Your task to perform on an android device: Go to Android settings Image 0: 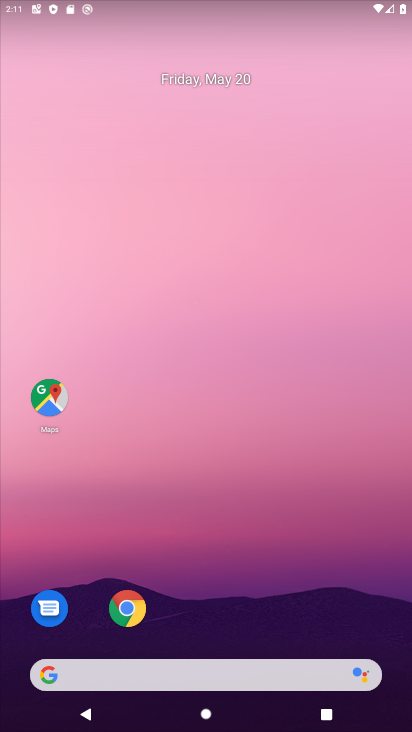
Step 0: drag from (210, 558) to (303, 85)
Your task to perform on an android device: Go to Android settings Image 1: 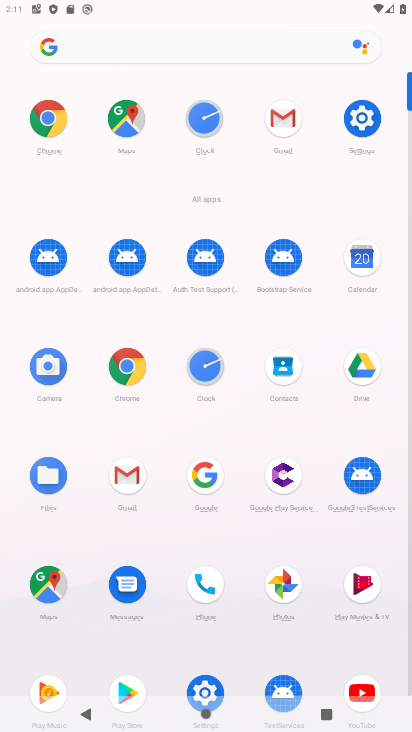
Step 1: click (367, 124)
Your task to perform on an android device: Go to Android settings Image 2: 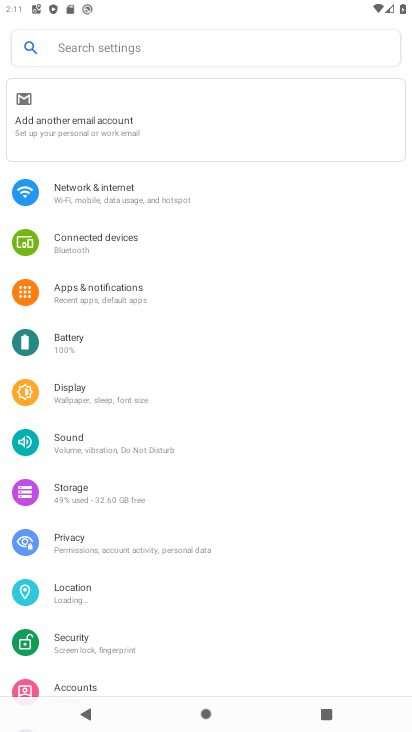
Step 2: drag from (121, 650) to (226, 140)
Your task to perform on an android device: Go to Android settings Image 3: 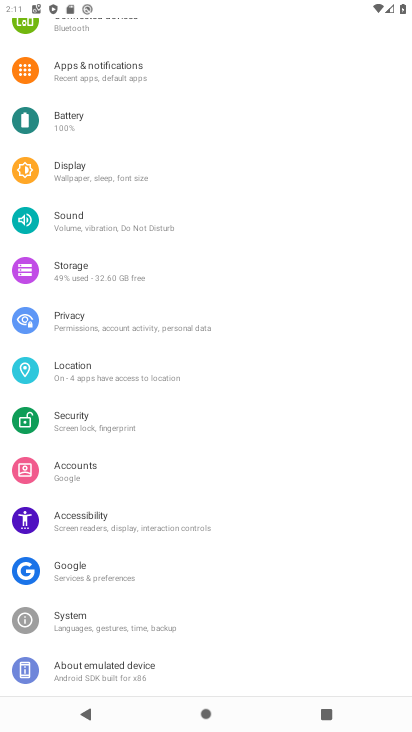
Step 3: click (82, 676)
Your task to perform on an android device: Go to Android settings Image 4: 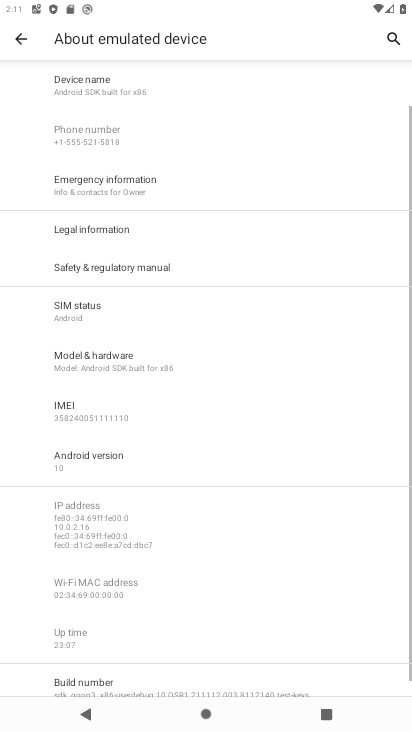
Step 4: click (95, 474)
Your task to perform on an android device: Go to Android settings Image 5: 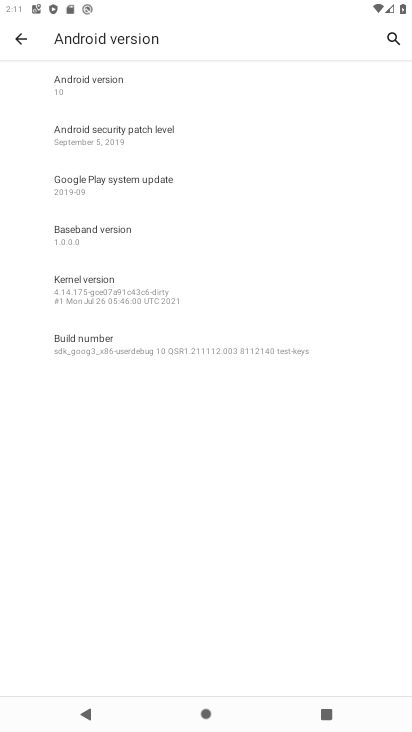
Step 5: task complete